Your task to perform on an android device: Open internet settings Image 0: 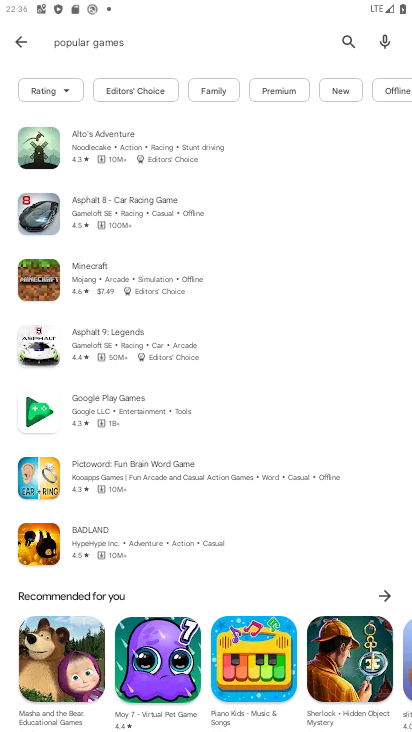
Step 0: press home button
Your task to perform on an android device: Open internet settings Image 1: 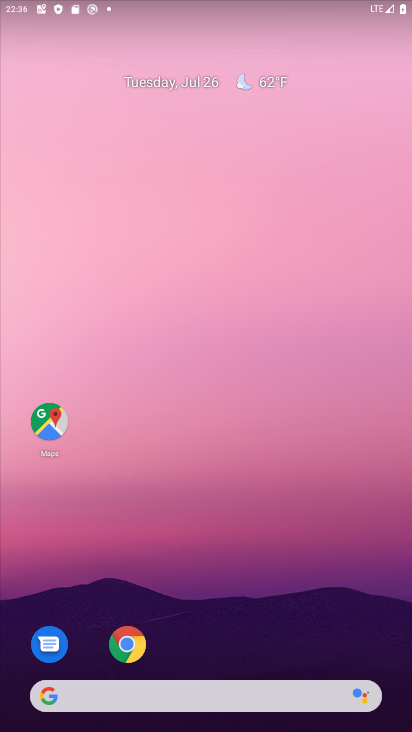
Step 1: drag from (219, 657) to (246, 49)
Your task to perform on an android device: Open internet settings Image 2: 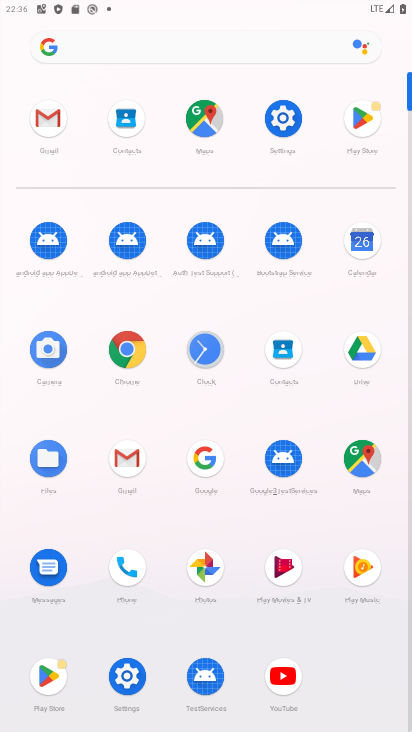
Step 2: click (284, 119)
Your task to perform on an android device: Open internet settings Image 3: 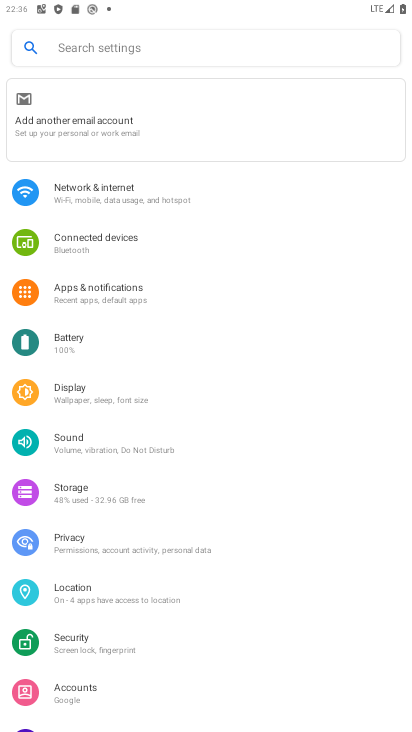
Step 3: click (79, 199)
Your task to perform on an android device: Open internet settings Image 4: 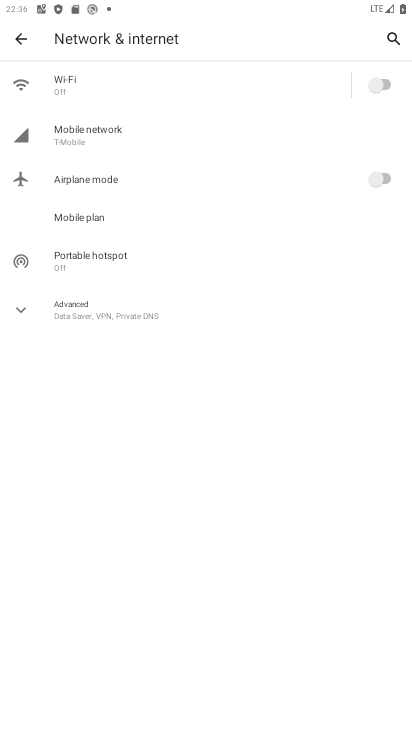
Step 4: click (18, 311)
Your task to perform on an android device: Open internet settings Image 5: 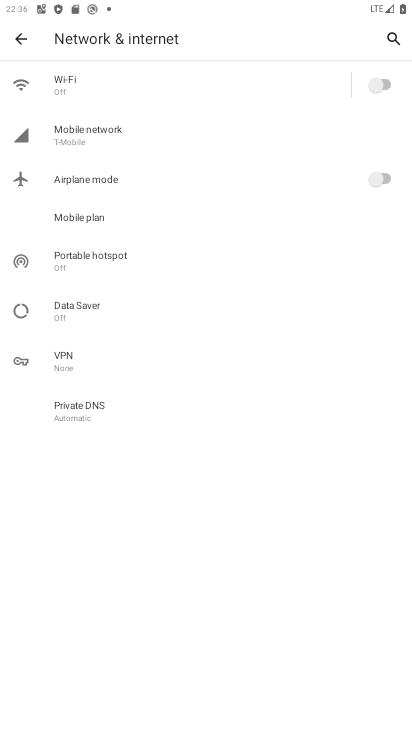
Step 5: task complete